Your task to perform on an android device: Toggle the flashlight Image 0: 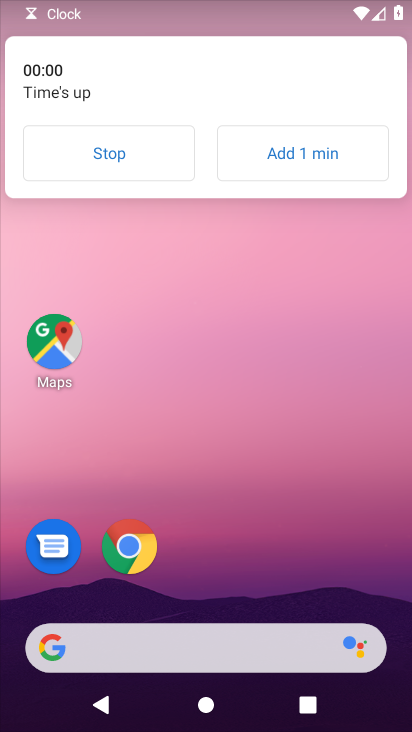
Step 0: drag from (234, 582) to (289, 40)
Your task to perform on an android device: Toggle the flashlight Image 1: 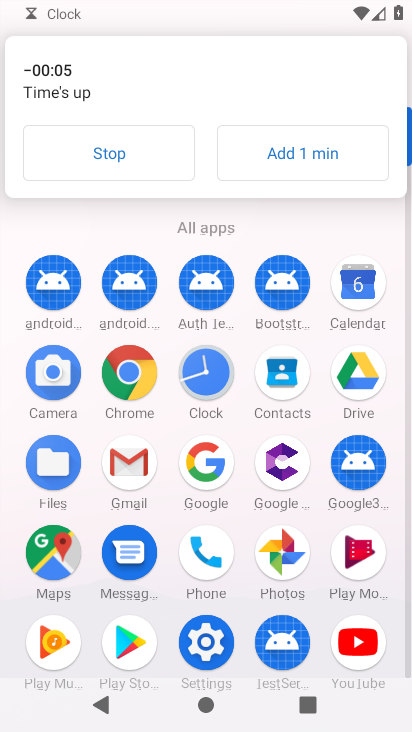
Step 1: click (153, 164)
Your task to perform on an android device: Toggle the flashlight Image 2: 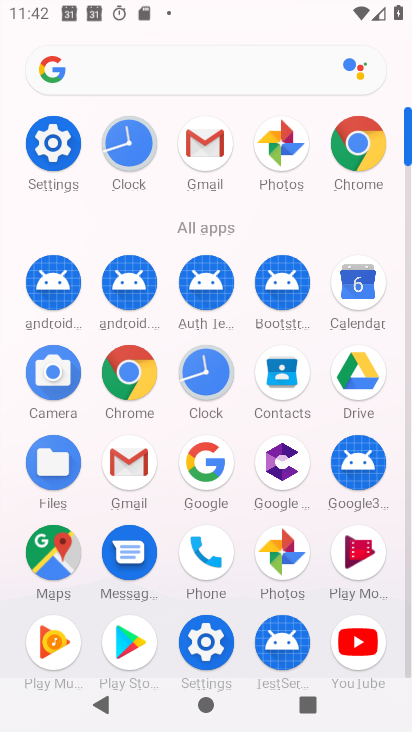
Step 2: click (55, 166)
Your task to perform on an android device: Toggle the flashlight Image 3: 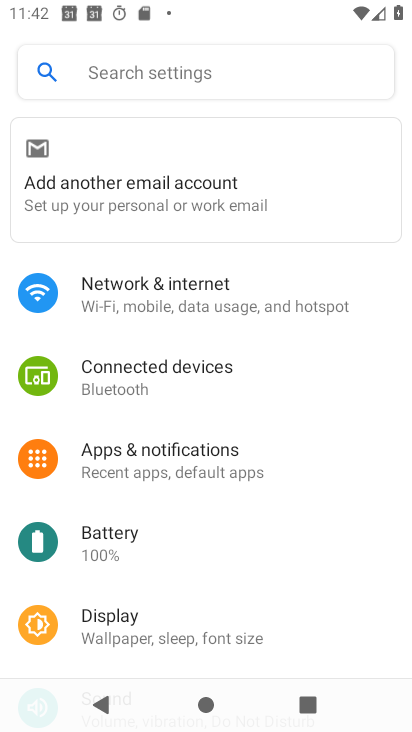
Step 3: click (182, 74)
Your task to perform on an android device: Toggle the flashlight Image 4: 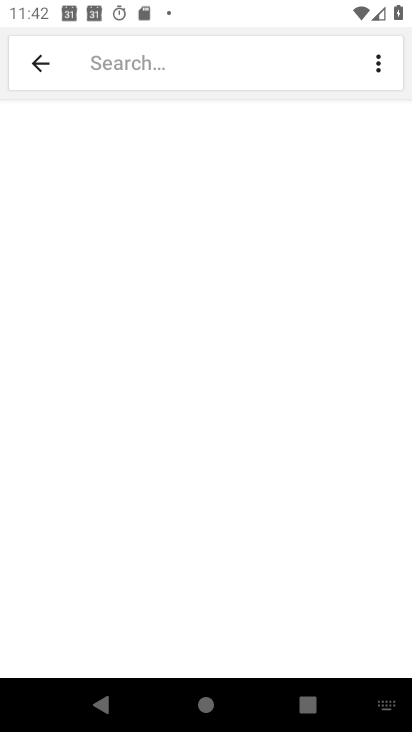
Step 4: type "flashlight"
Your task to perform on an android device: Toggle the flashlight Image 5: 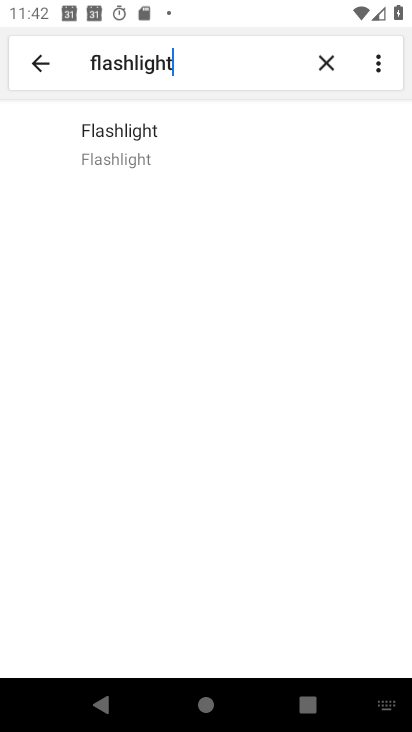
Step 5: click (115, 134)
Your task to perform on an android device: Toggle the flashlight Image 6: 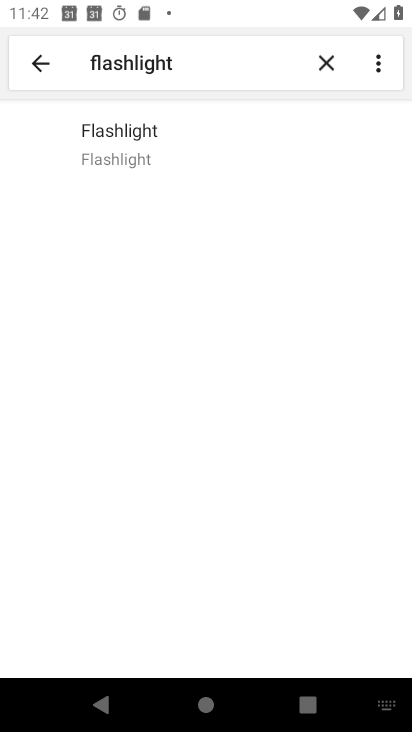
Step 6: click (115, 134)
Your task to perform on an android device: Toggle the flashlight Image 7: 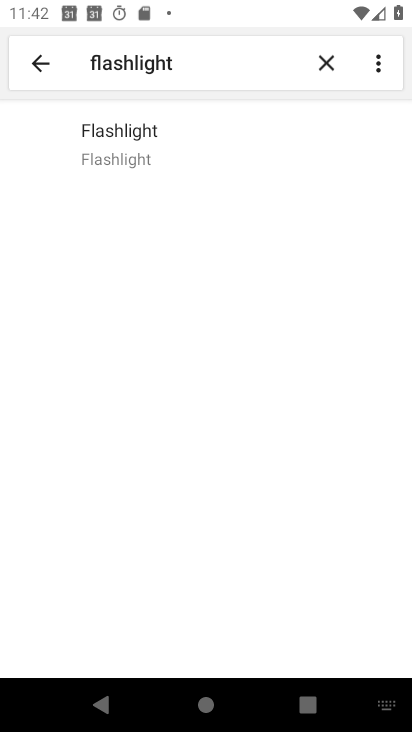
Step 7: task complete